Your task to perform on an android device: What's the weather going to be tomorrow? Image 0: 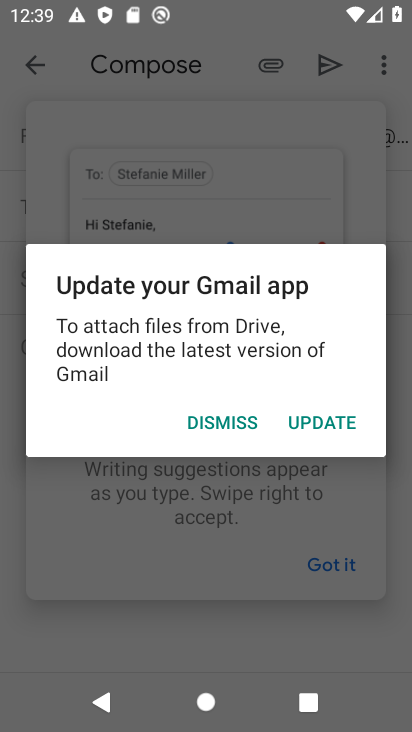
Step 0: press home button
Your task to perform on an android device: What's the weather going to be tomorrow? Image 1: 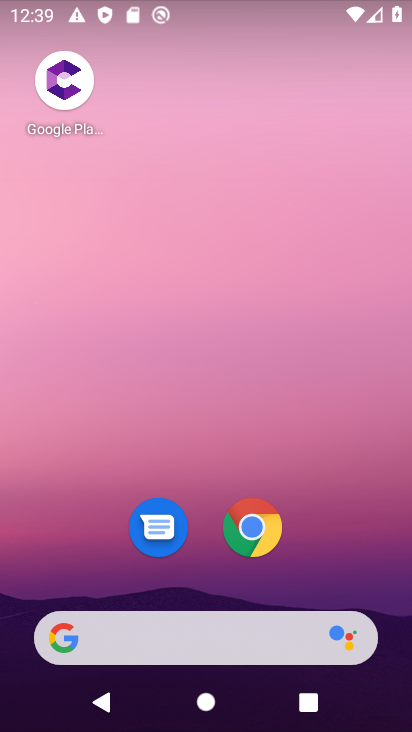
Step 1: drag from (348, 553) to (133, 0)
Your task to perform on an android device: What's the weather going to be tomorrow? Image 2: 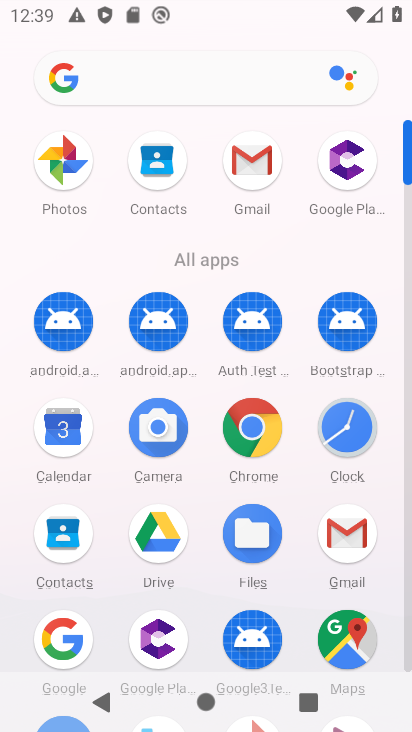
Step 2: click (130, 117)
Your task to perform on an android device: What's the weather going to be tomorrow? Image 3: 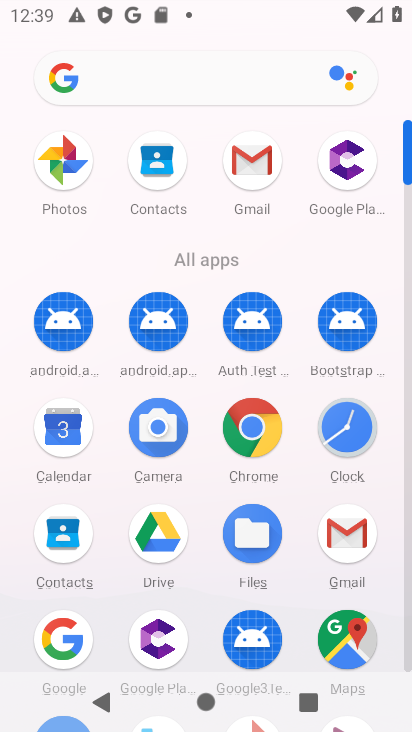
Step 3: click (130, 94)
Your task to perform on an android device: What's the weather going to be tomorrow? Image 4: 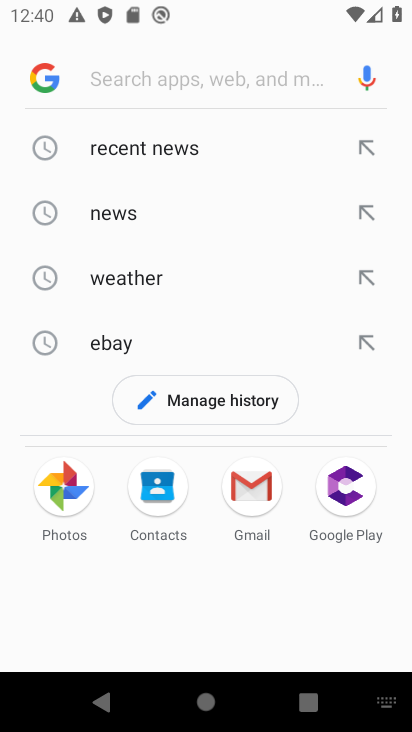
Step 4: type "what's the weather going to be tomorrow?"
Your task to perform on an android device: What's the weather going to be tomorrow? Image 5: 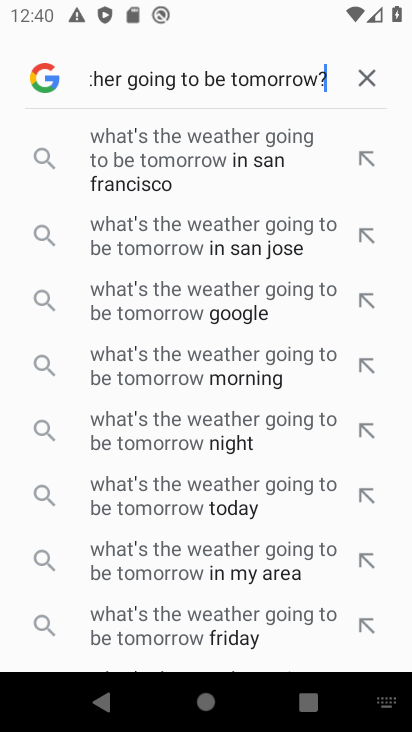
Step 5: click (237, 287)
Your task to perform on an android device: What's the weather going to be tomorrow? Image 6: 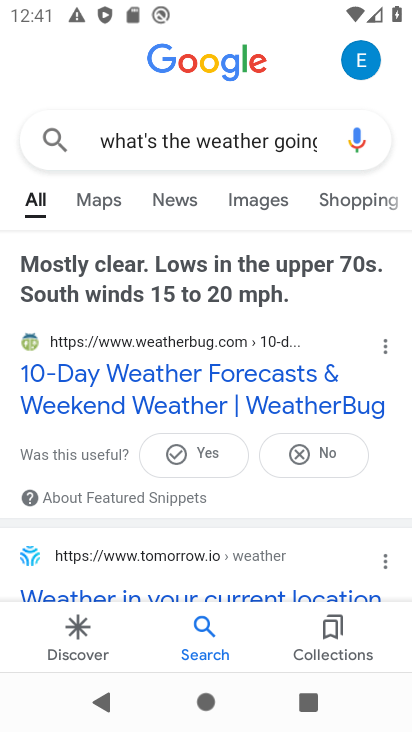
Step 6: task complete